Your task to perform on an android device: toggle priority inbox in the gmail app Image 0: 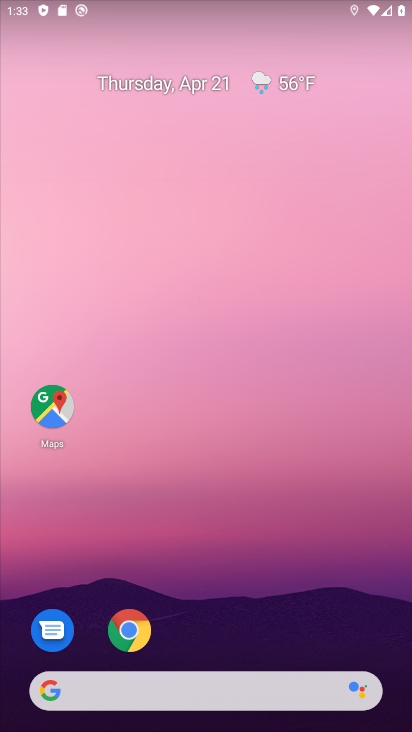
Step 0: drag from (316, 622) to (224, 11)
Your task to perform on an android device: toggle priority inbox in the gmail app Image 1: 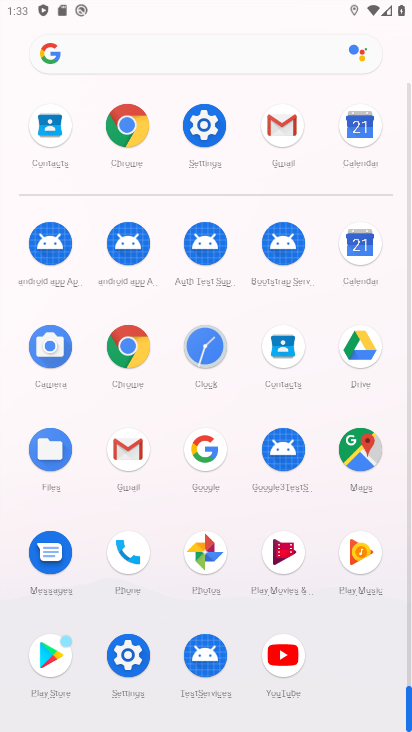
Step 1: click (285, 135)
Your task to perform on an android device: toggle priority inbox in the gmail app Image 2: 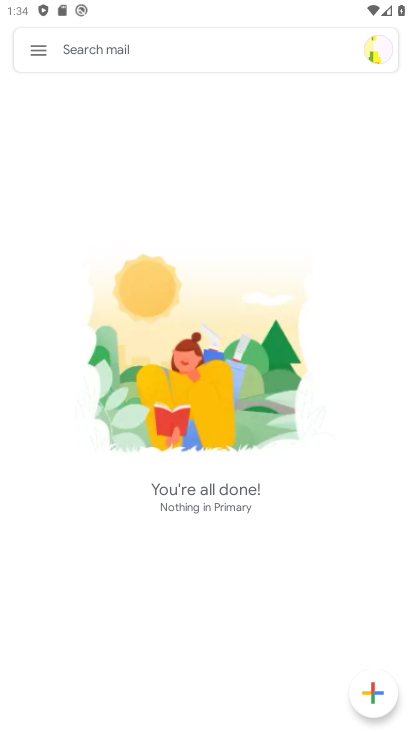
Step 2: click (47, 46)
Your task to perform on an android device: toggle priority inbox in the gmail app Image 3: 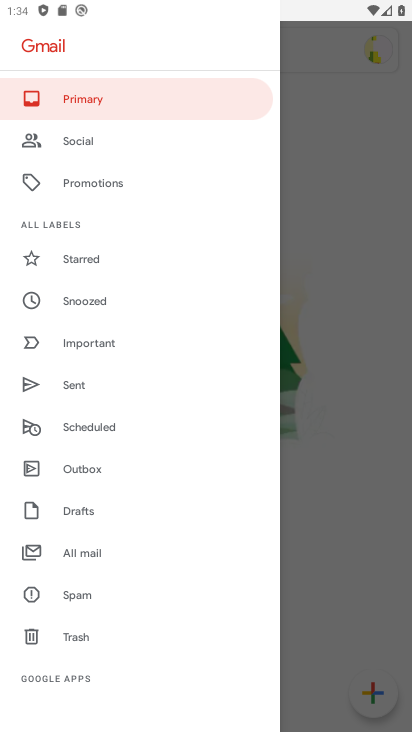
Step 3: drag from (110, 622) to (54, 164)
Your task to perform on an android device: toggle priority inbox in the gmail app Image 4: 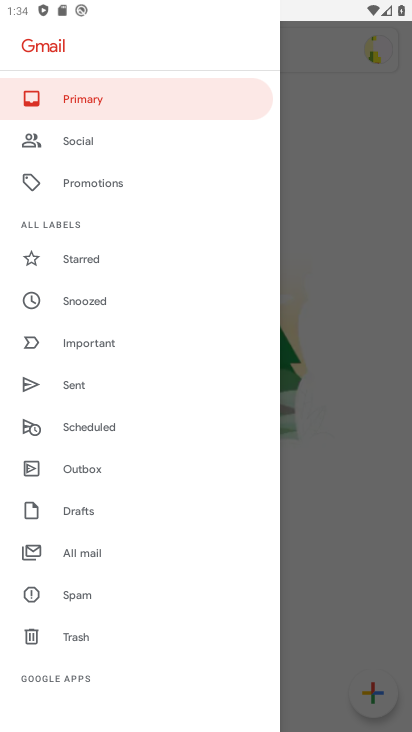
Step 4: drag from (123, 613) to (106, 240)
Your task to perform on an android device: toggle priority inbox in the gmail app Image 5: 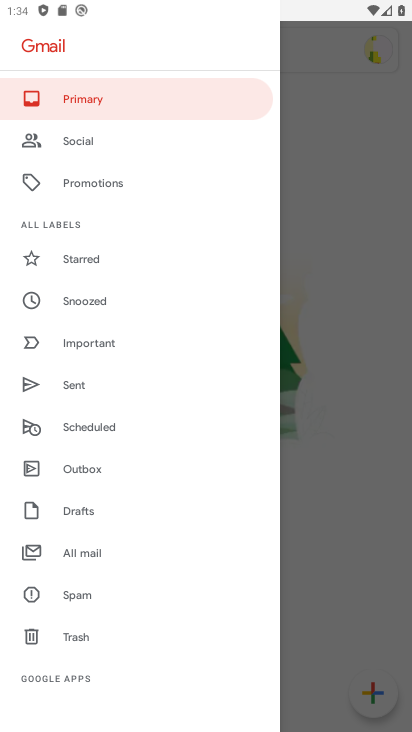
Step 5: drag from (128, 712) to (142, 302)
Your task to perform on an android device: toggle priority inbox in the gmail app Image 6: 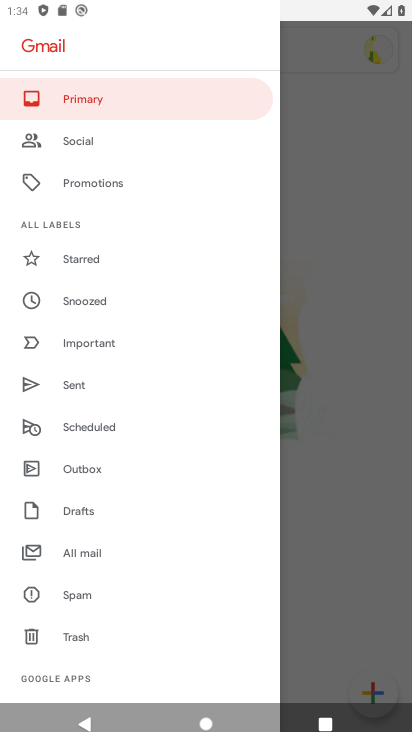
Step 6: drag from (96, 647) to (132, 143)
Your task to perform on an android device: toggle priority inbox in the gmail app Image 7: 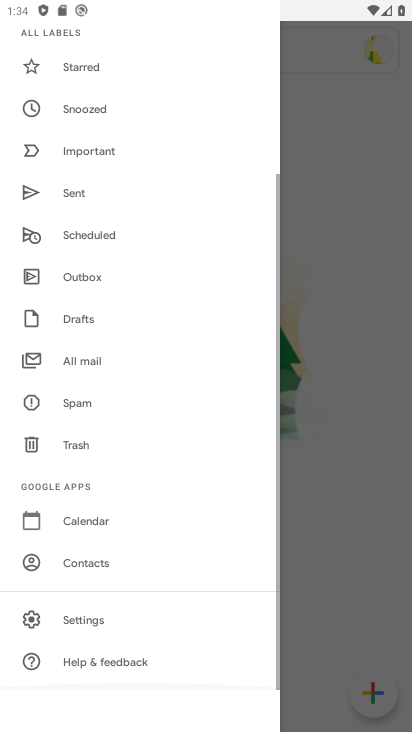
Step 7: click (87, 615)
Your task to perform on an android device: toggle priority inbox in the gmail app Image 8: 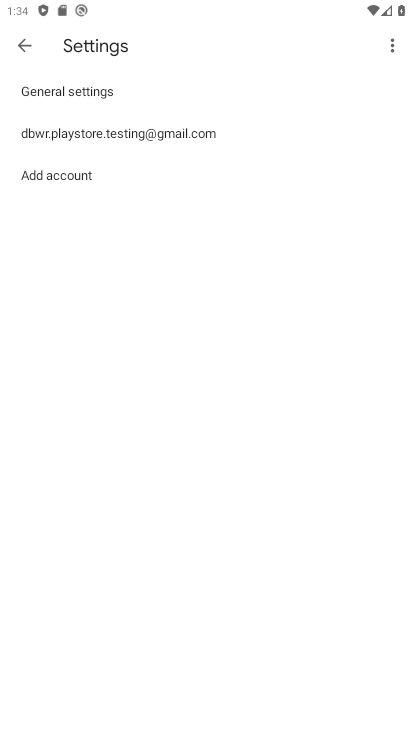
Step 8: click (147, 131)
Your task to perform on an android device: toggle priority inbox in the gmail app Image 9: 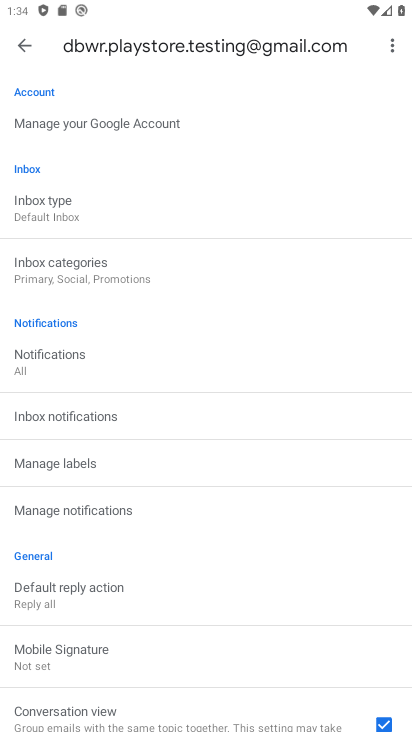
Step 9: click (80, 197)
Your task to perform on an android device: toggle priority inbox in the gmail app Image 10: 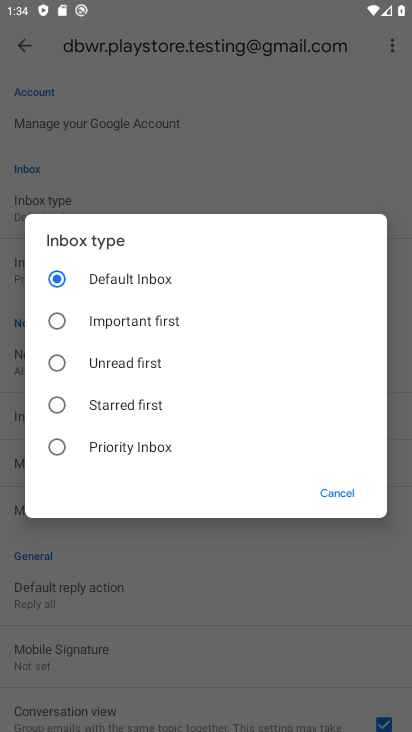
Step 10: click (138, 445)
Your task to perform on an android device: toggle priority inbox in the gmail app Image 11: 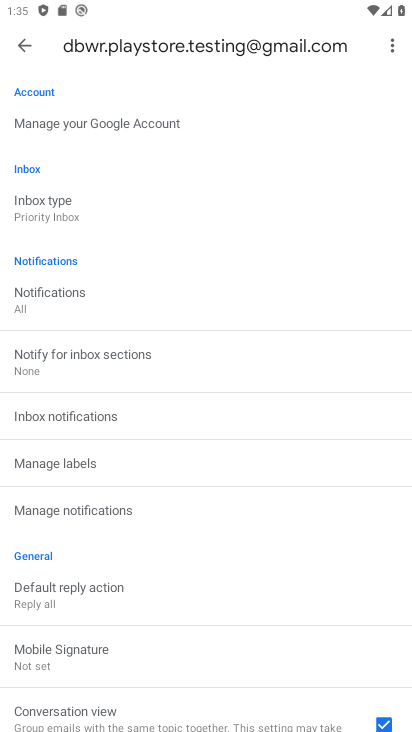
Step 11: task complete